Your task to perform on an android device: change the clock display to analog Image 0: 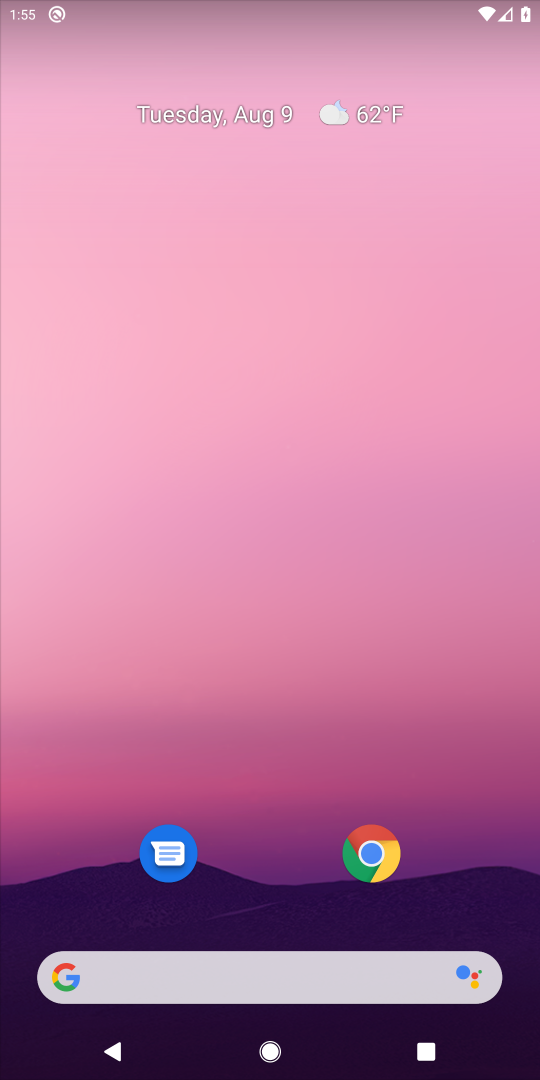
Step 0: drag from (253, 887) to (283, 147)
Your task to perform on an android device: change the clock display to analog Image 1: 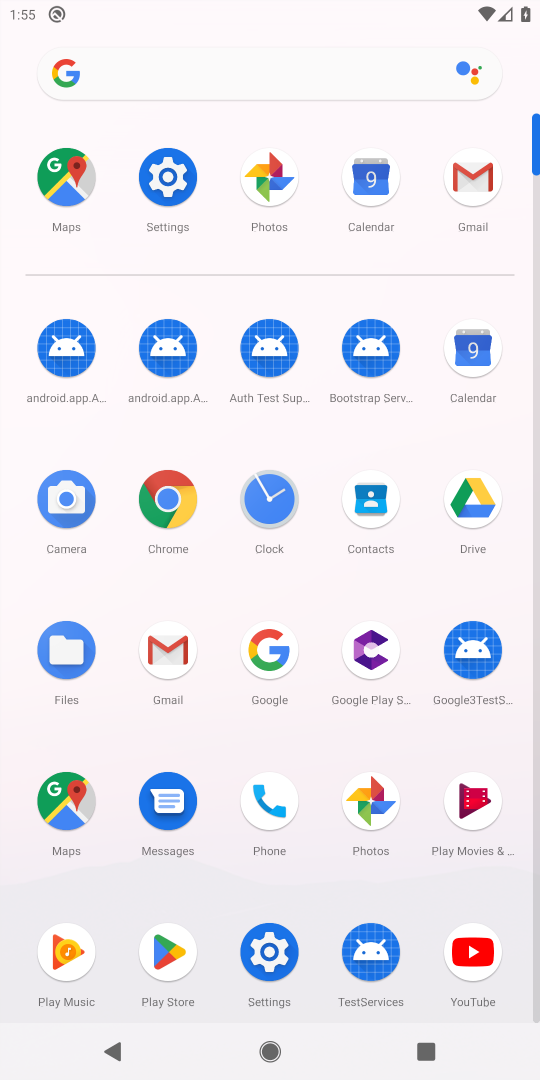
Step 1: click (281, 512)
Your task to perform on an android device: change the clock display to analog Image 2: 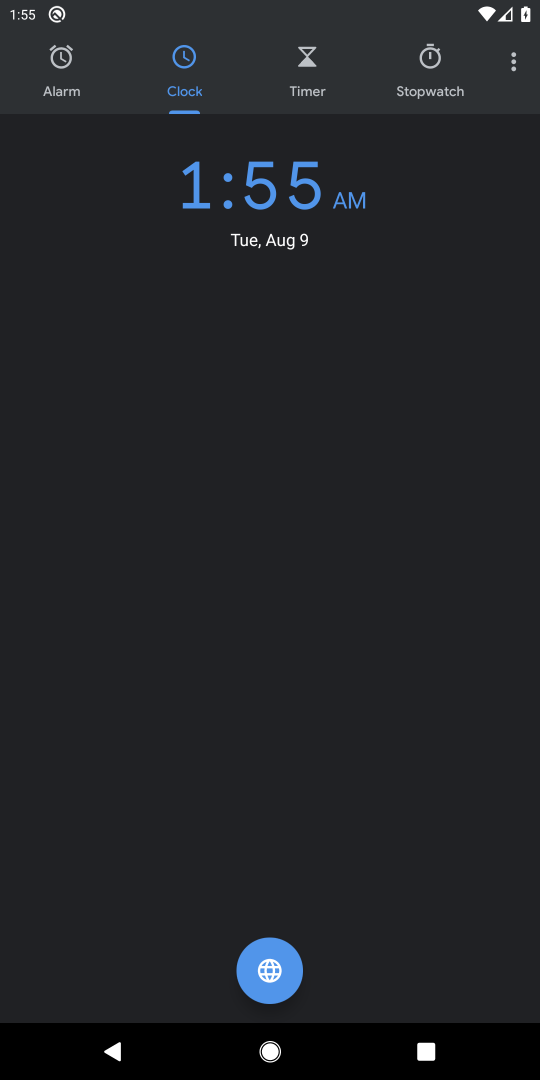
Step 2: click (513, 71)
Your task to perform on an android device: change the clock display to analog Image 3: 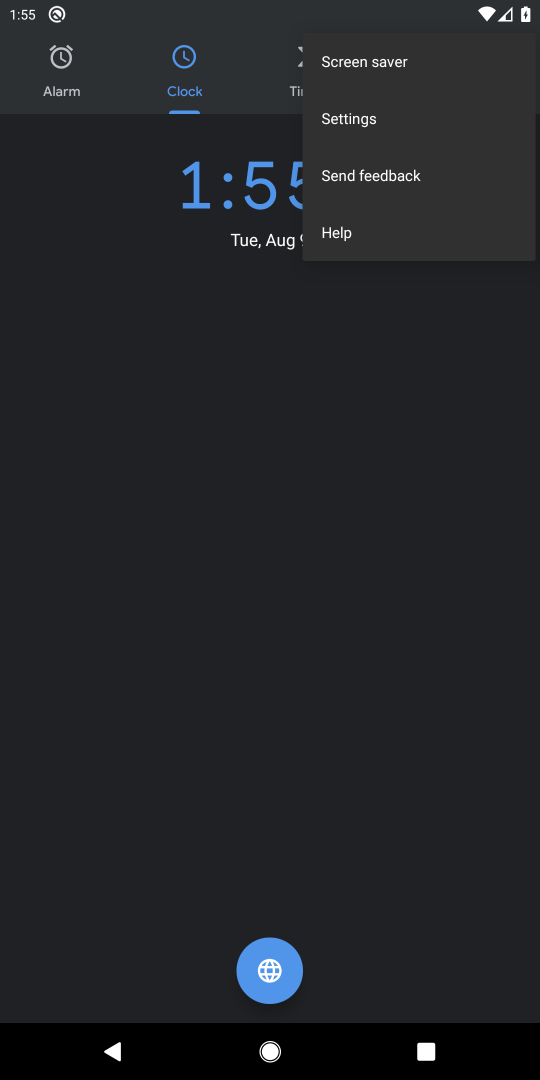
Step 3: click (373, 121)
Your task to perform on an android device: change the clock display to analog Image 4: 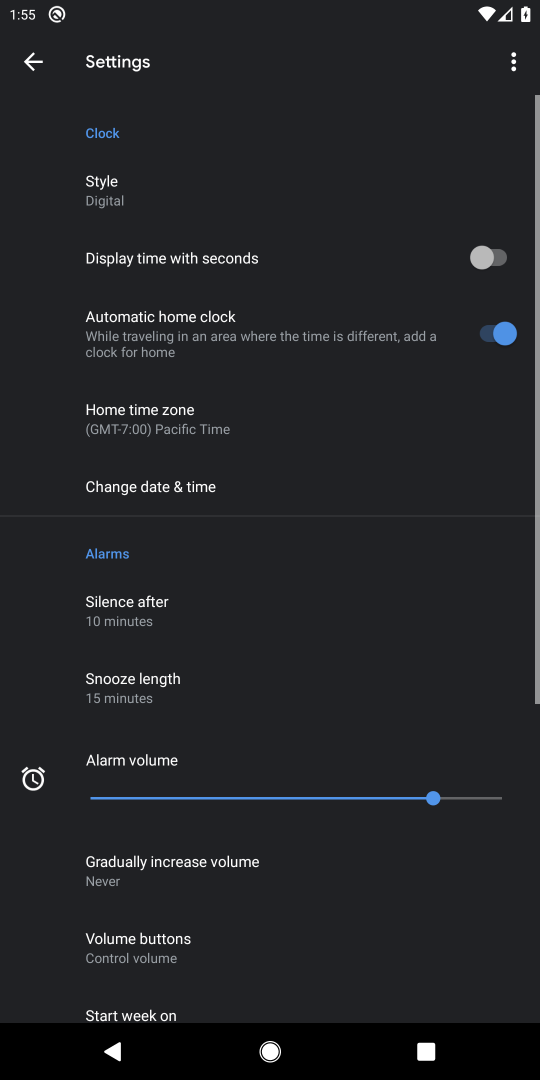
Step 4: click (120, 192)
Your task to perform on an android device: change the clock display to analog Image 5: 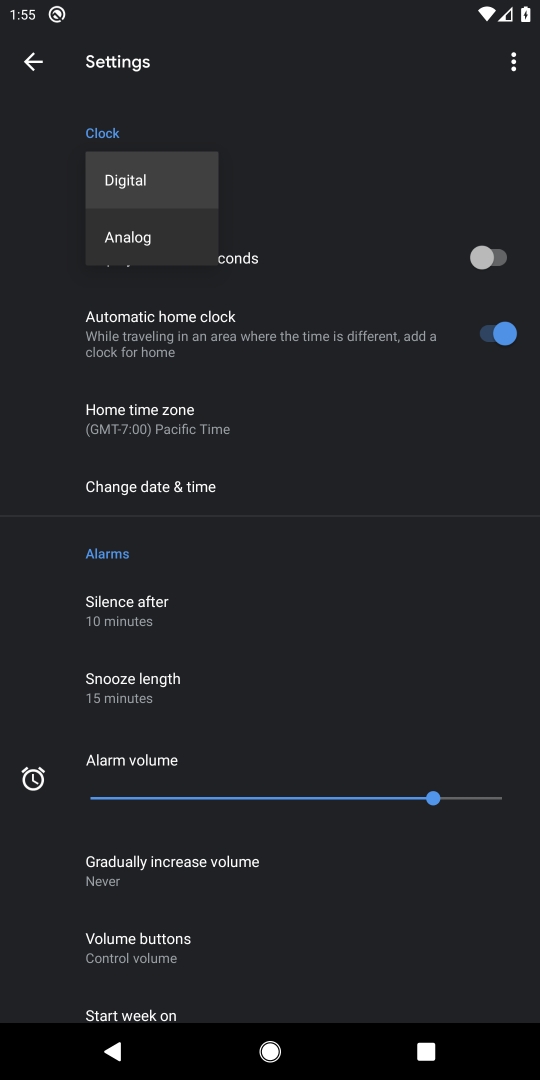
Step 5: click (139, 239)
Your task to perform on an android device: change the clock display to analog Image 6: 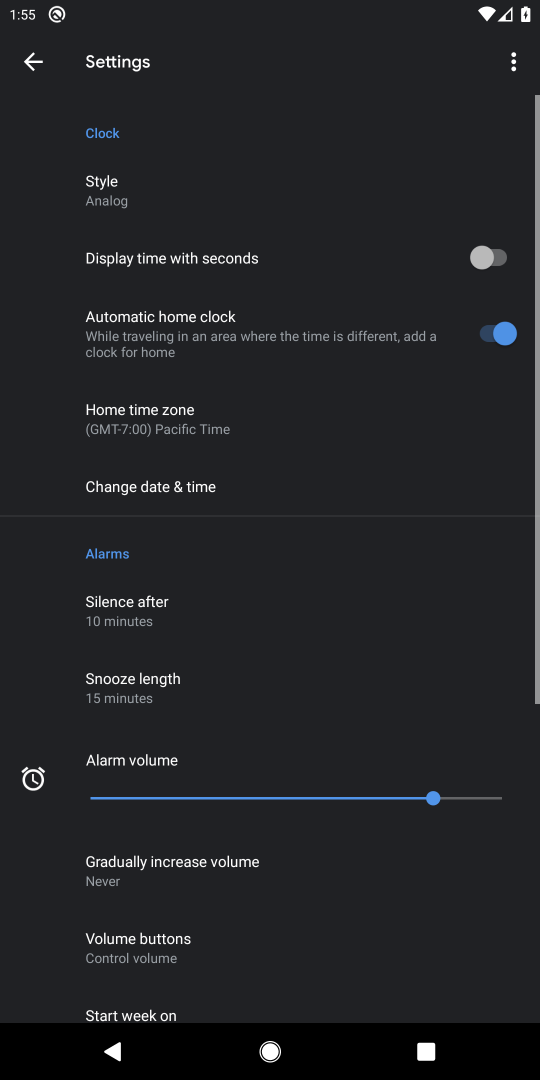
Step 6: task complete